Your task to perform on an android device: Open Android settings Image 0: 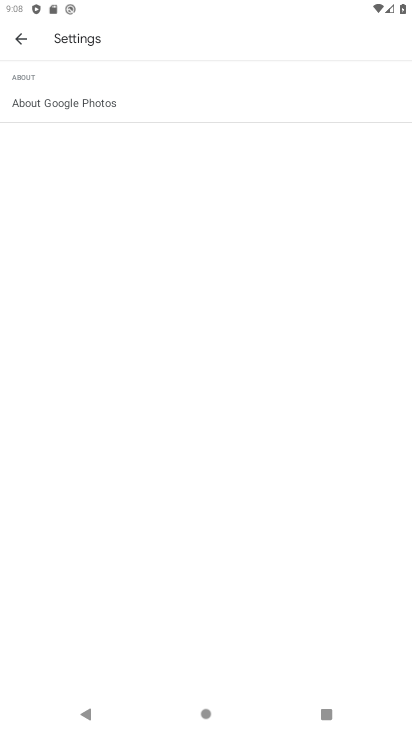
Step 0: press home button
Your task to perform on an android device: Open Android settings Image 1: 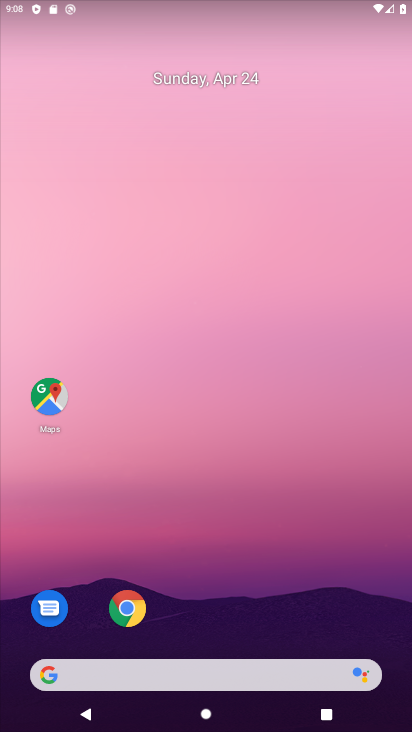
Step 1: drag from (271, 608) to (286, 148)
Your task to perform on an android device: Open Android settings Image 2: 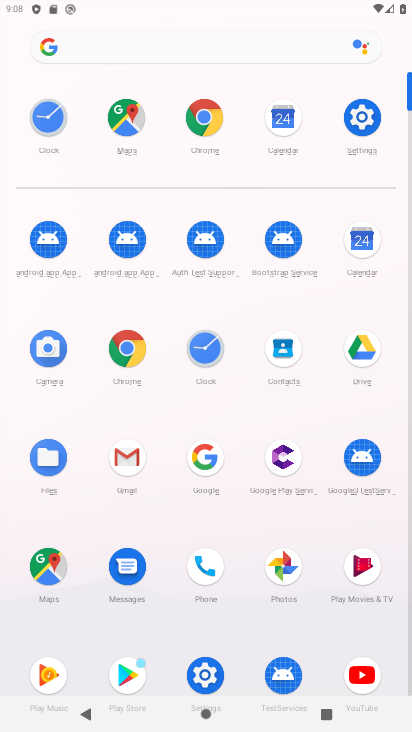
Step 2: drag from (289, 146) to (368, 131)
Your task to perform on an android device: Open Android settings Image 3: 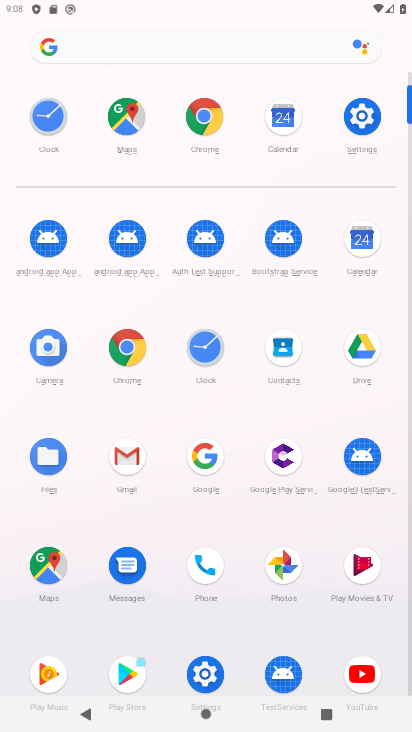
Step 3: click (384, 95)
Your task to perform on an android device: Open Android settings Image 4: 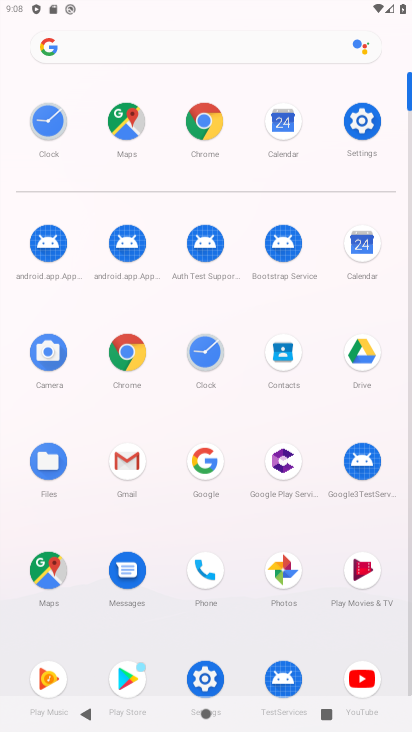
Step 4: click (357, 107)
Your task to perform on an android device: Open Android settings Image 5: 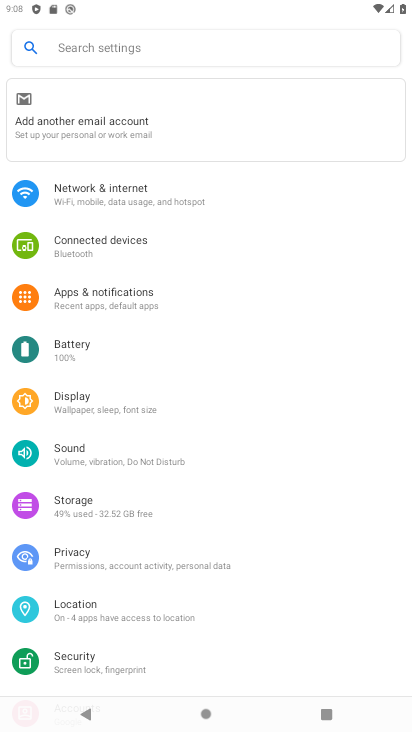
Step 5: click (120, 51)
Your task to perform on an android device: Open Android settings Image 6: 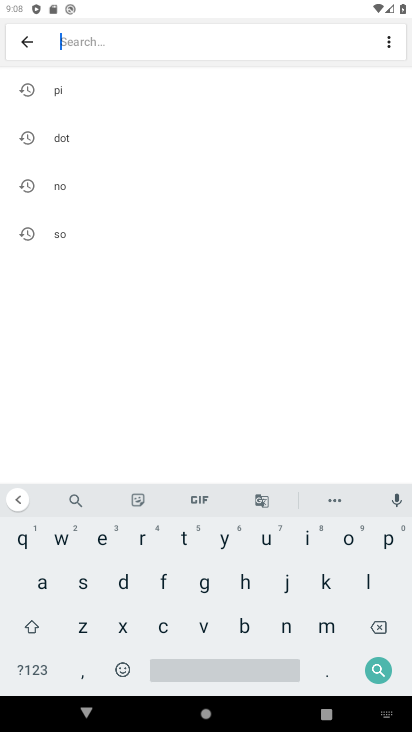
Step 6: click (34, 584)
Your task to perform on an android device: Open Android settings Image 7: 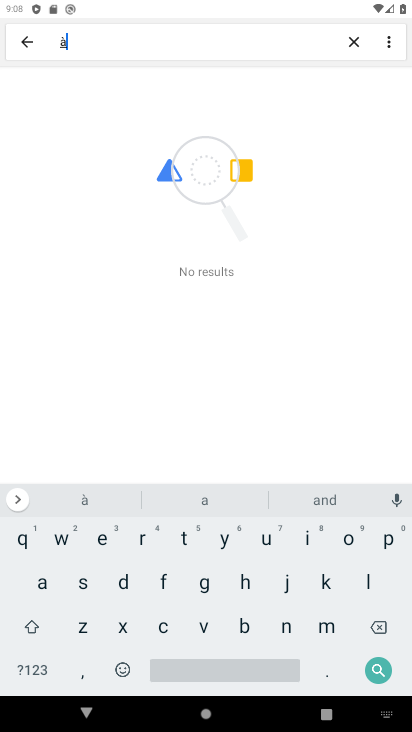
Step 7: click (380, 623)
Your task to perform on an android device: Open Android settings Image 8: 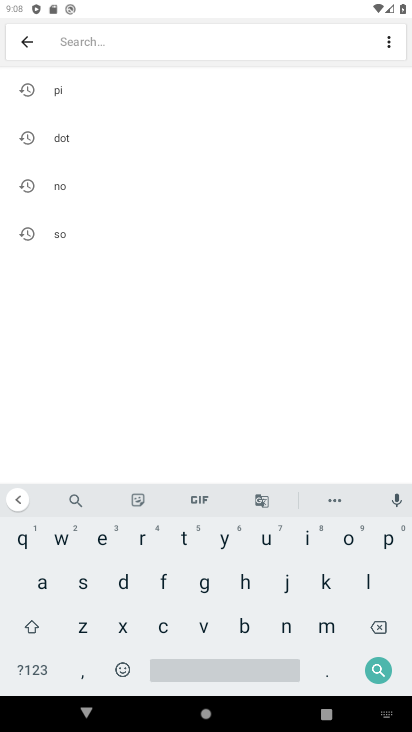
Step 8: click (41, 590)
Your task to perform on an android device: Open Android settings Image 9: 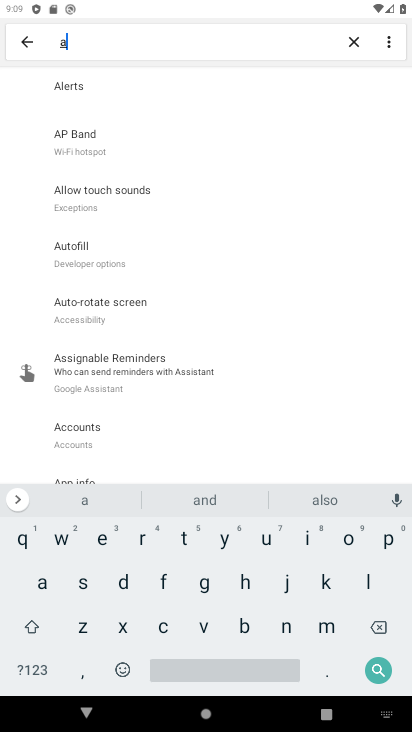
Step 9: click (284, 631)
Your task to perform on an android device: Open Android settings Image 10: 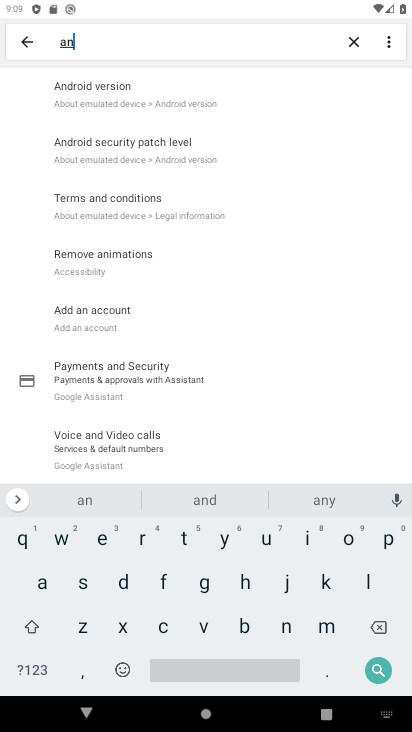
Step 10: click (119, 578)
Your task to perform on an android device: Open Android settings Image 11: 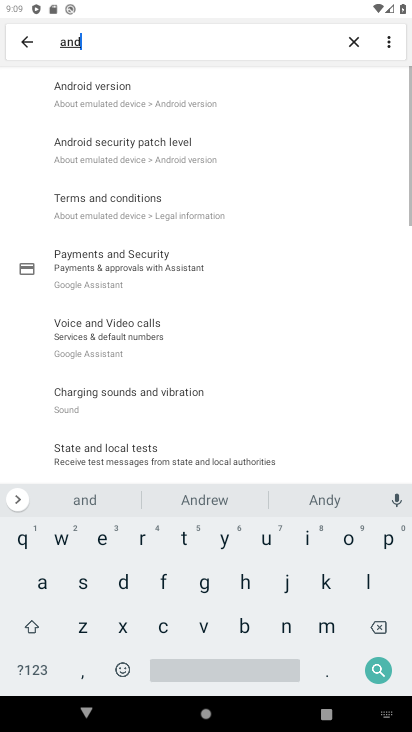
Step 11: click (83, 87)
Your task to perform on an android device: Open Android settings Image 12: 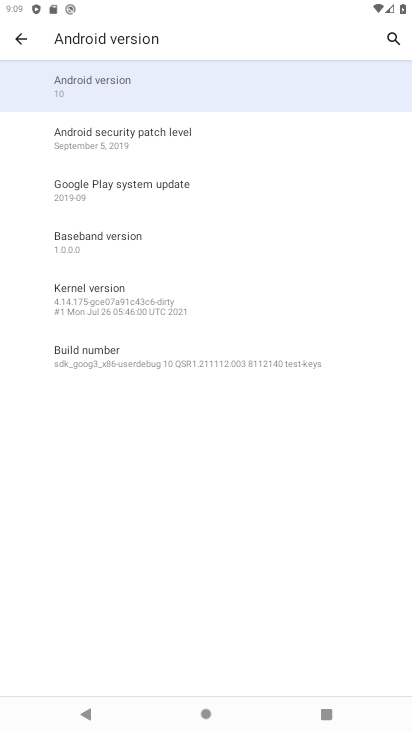
Step 12: task complete